Your task to perform on an android device: Open network settings Image 0: 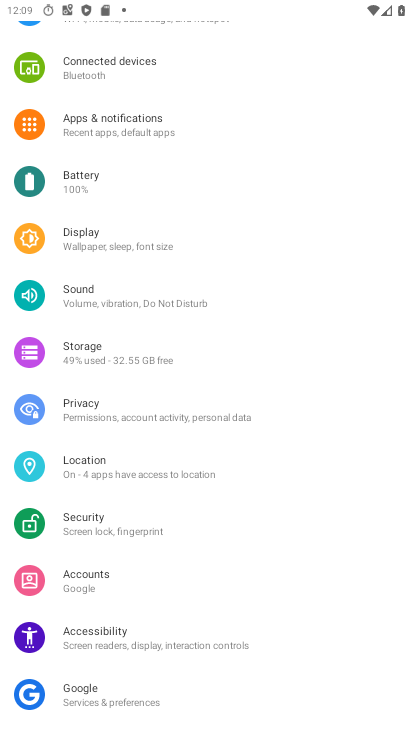
Step 0: drag from (248, 109) to (254, 730)
Your task to perform on an android device: Open network settings Image 1: 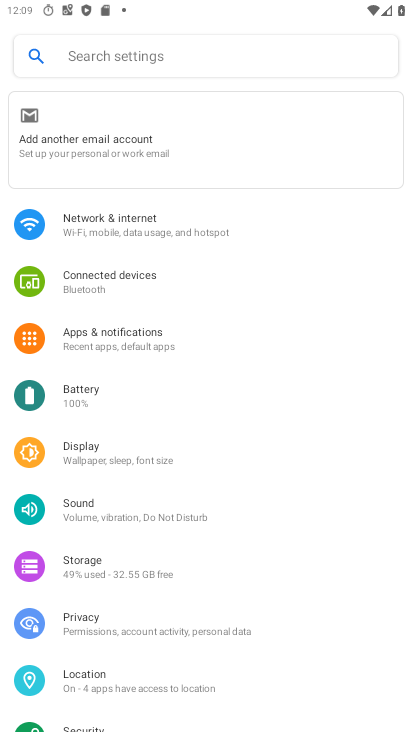
Step 1: click (163, 213)
Your task to perform on an android device: Open network settings Image 2: 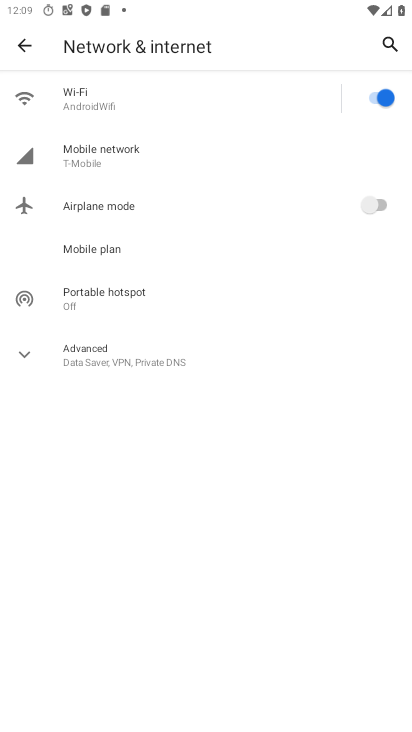
Step 2: click (109, 104)
Your task to perform on an android device: Open network settings Image 3: 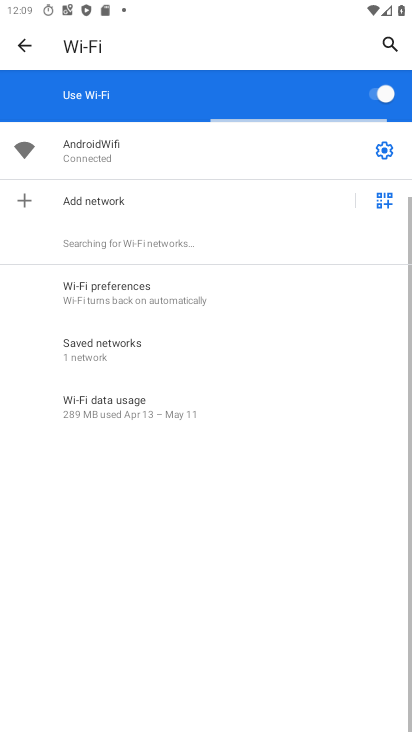
Step 3: click (386, 144)
Your task to perform on an android device: Open network settings Image 4: 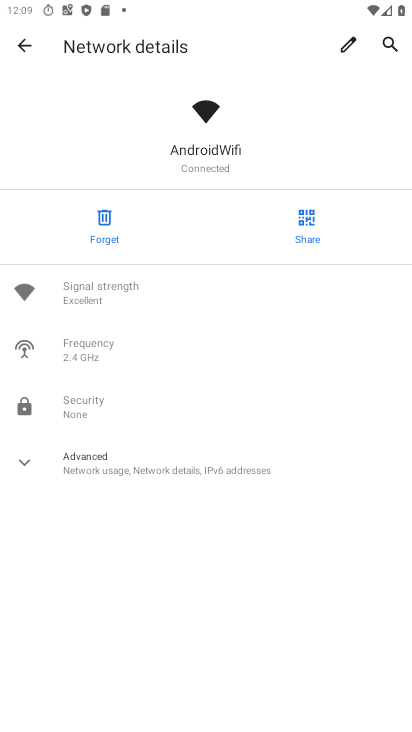
Step 4: task complete